Your task to perform on an android device: move an email to a new category in the gmail app Image 0: 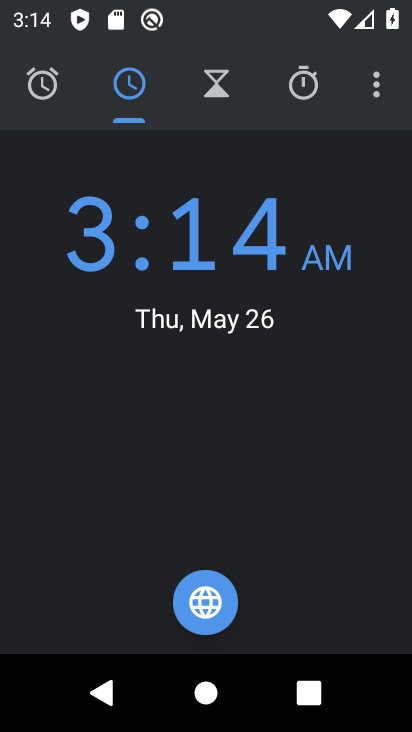
Step 0: press home button
Your task to perform on an android device: move an email to a new category in the gmail app Image 1: 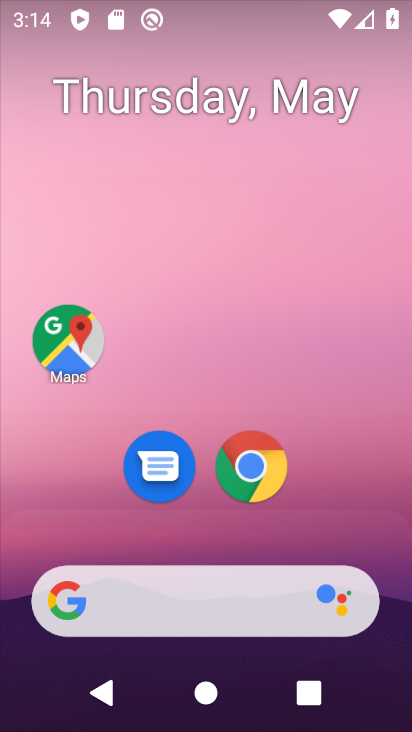
Step 1: drag from (73, 577) to (200, 88)
Your task to perform on an android device: move an email to a new category in the gmail app Image 2: 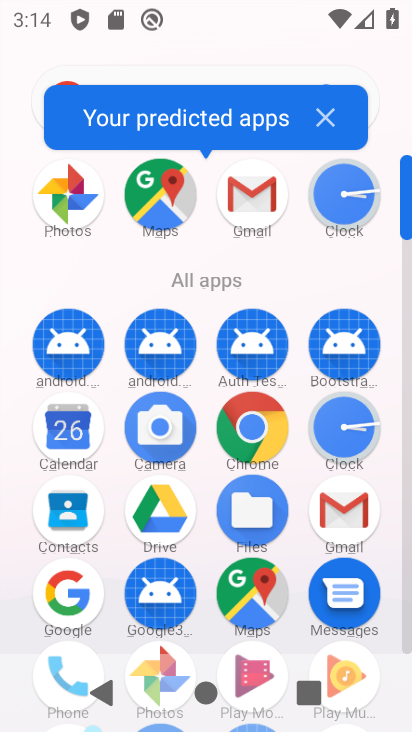
Step 2: click (339, 499)
Your task to perform on an android device: move an email to a new category in the gmail app Image 3: 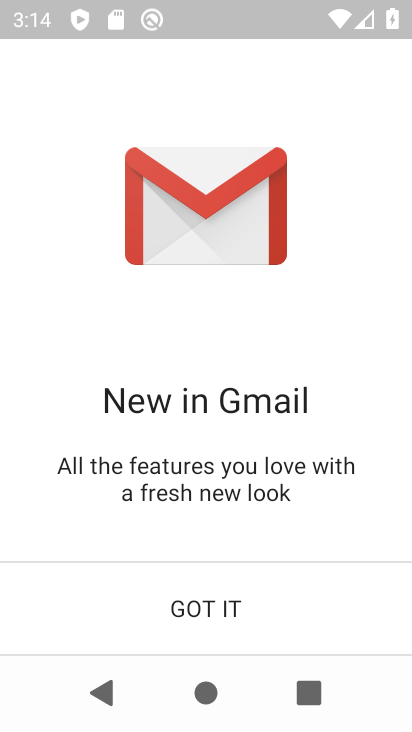
Step 3: click (223, 632)
Your task to perform on an android device: move an email to a new category in the gmail app Image 4: 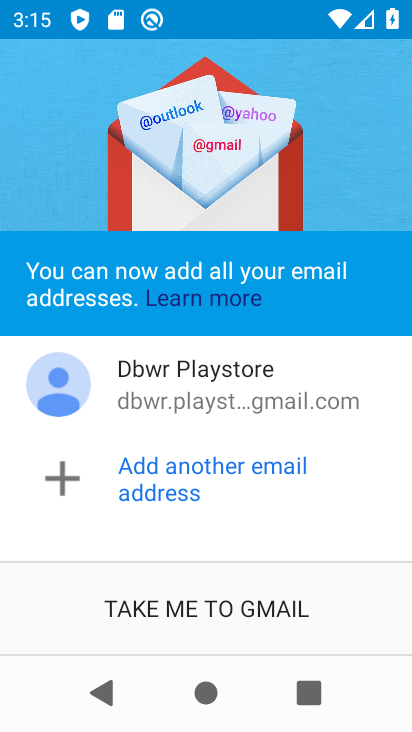
Step 4: click (223, 632)
Your task to perform on an android device: move an email to a new category in the gmail app Image 5: 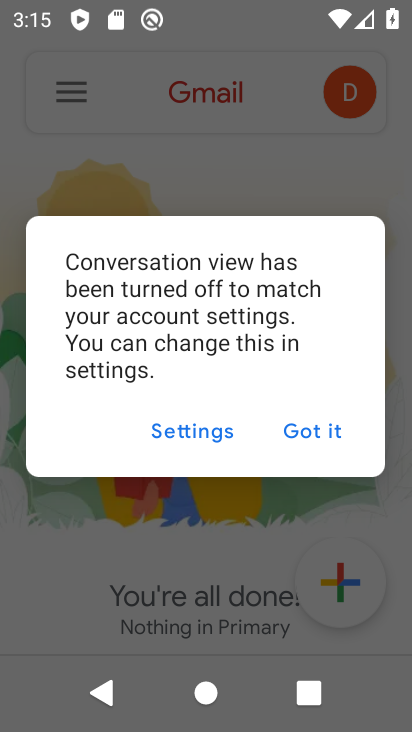
Step 5: click (324, 436)
Your task to perform on an android device: move an email to a new category in the gmail app Image 6: 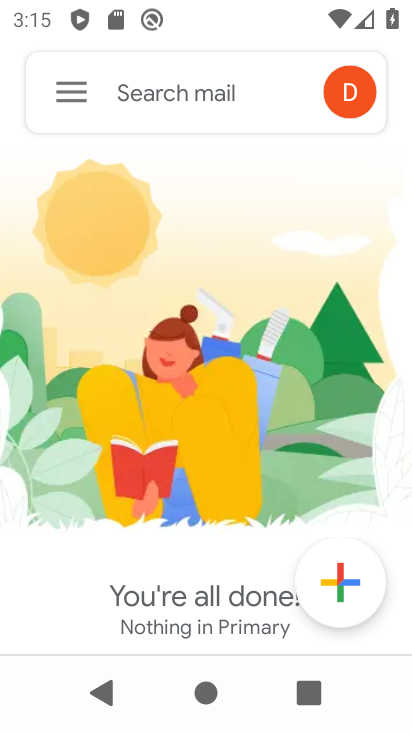
Step 6: click (67, 106)
Your task to perform on an android device: move an email to a new category in the gmail app Image 7: 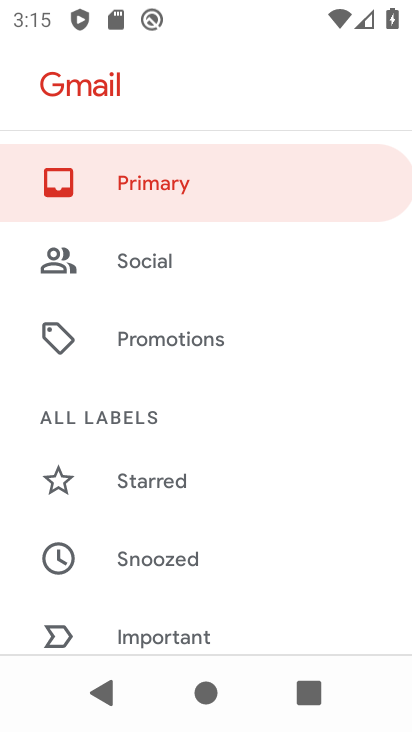
Step 7: drag from (128, 601) to (295, 154)
Your task to perform on an android device: move an email to a new category in the gmail app Image 8: 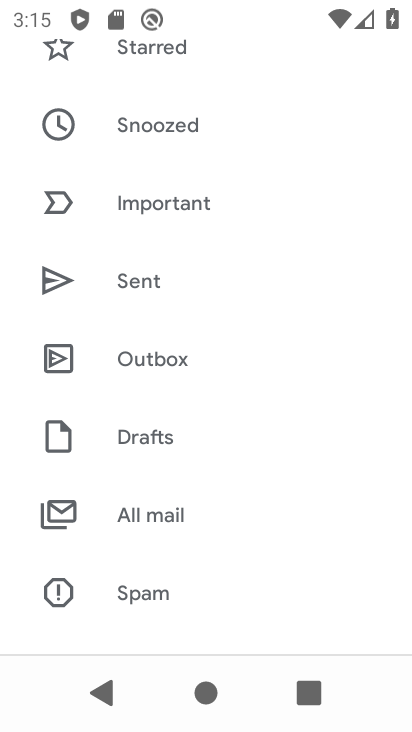
Step 8: click (188, 517)
Your task to perform on an android device: move an email to a new category in the gmail app Image 9: 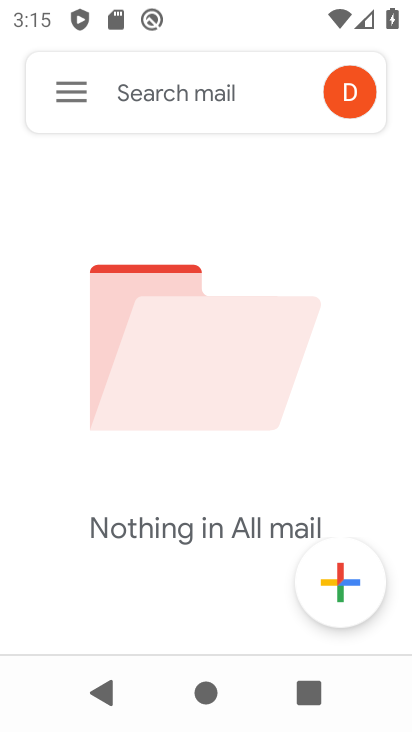
Step 9: task complete